Your task to perform on an android device: choose inbox layout in the gmail app Image 0: 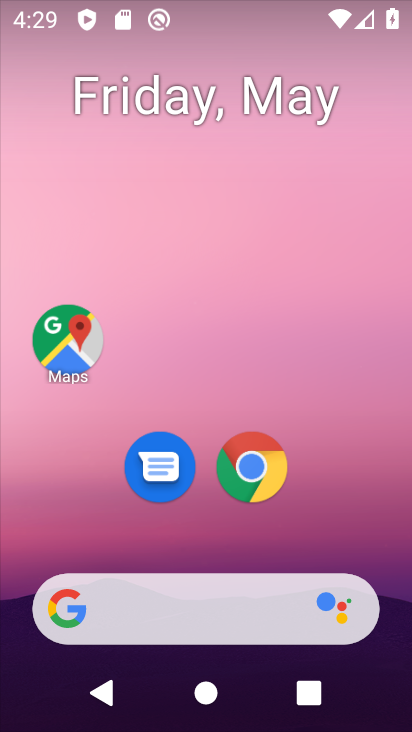
Step 0: drag from (387, 480) to (334, 69)
Your task to perform on an android device: choose inbox layout in the gmail app Image 1: 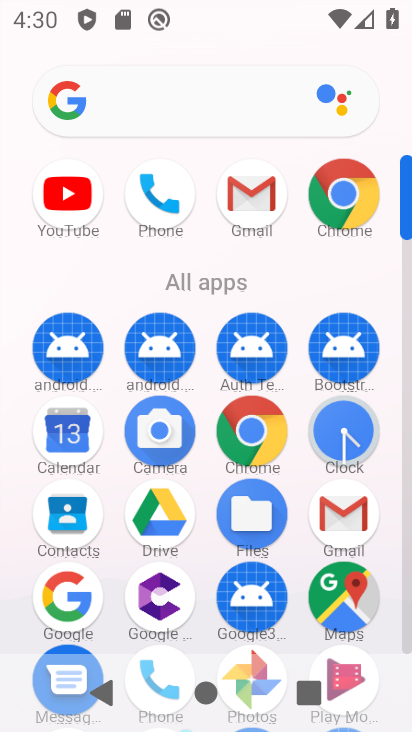
Step 1: click (254, 194)
Your task to perform on an android device: choose inbox layout in the gmail app Image 2: 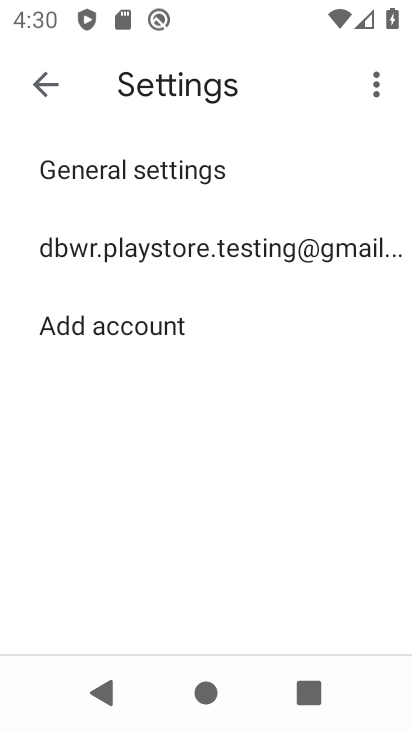
Step 2: click (95, 246)
Your task to perform on an android device: choose inbox layout in the gmail app Image 3: 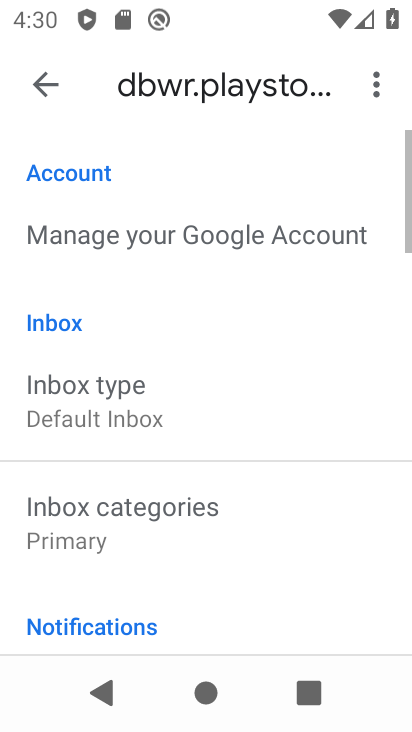
Step 3: click (111, 389)
Your task to perform on an android device: choose inbox layout in the gmail app Image 4: 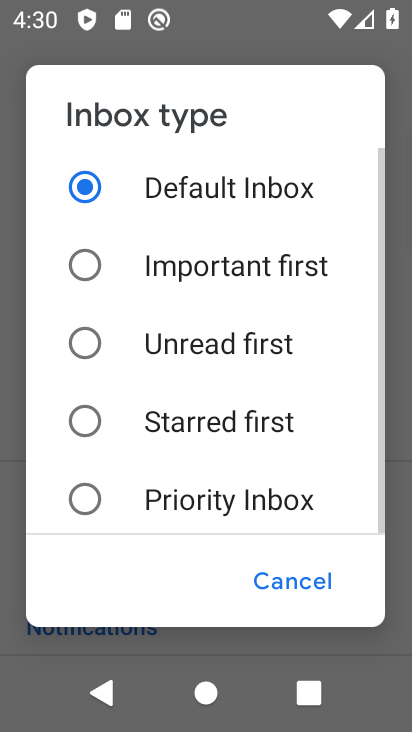
Step 4: task complete